Your task to perform on an android device: Open Chrome and go to settings Image 0: 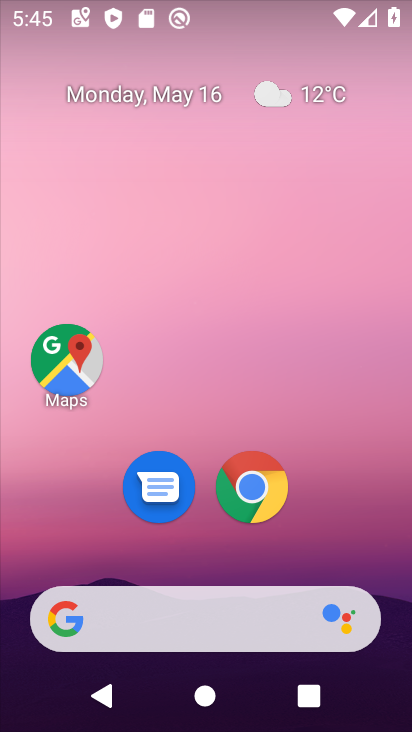
Step 0: click (258, 469)
Your task to perform on an android device: Open Chrome and go to settings Image 1: 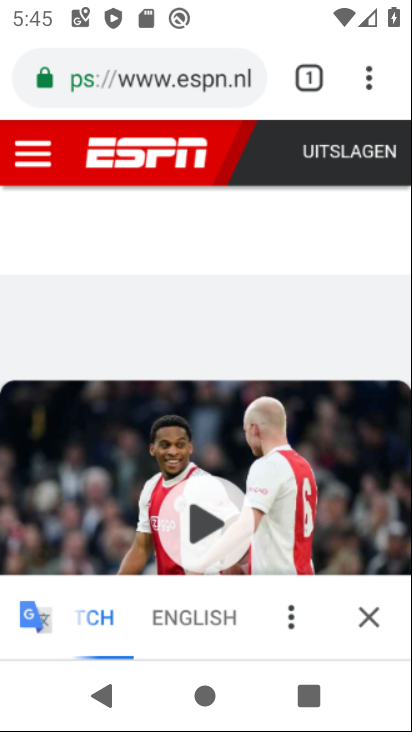
Step 1: task complete